Your task to perform on an android device: uninstall "Microsoft Outlook" Image 0: 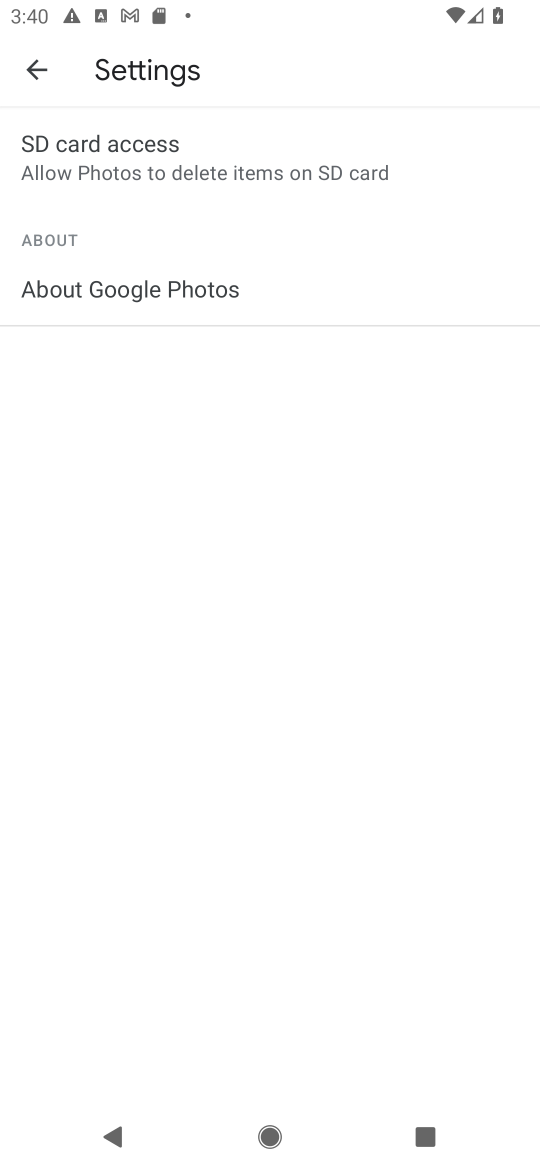
Step 0: press home button
Your task to perform on an android device: uninstall "Microsoft Outlook" Image 1: 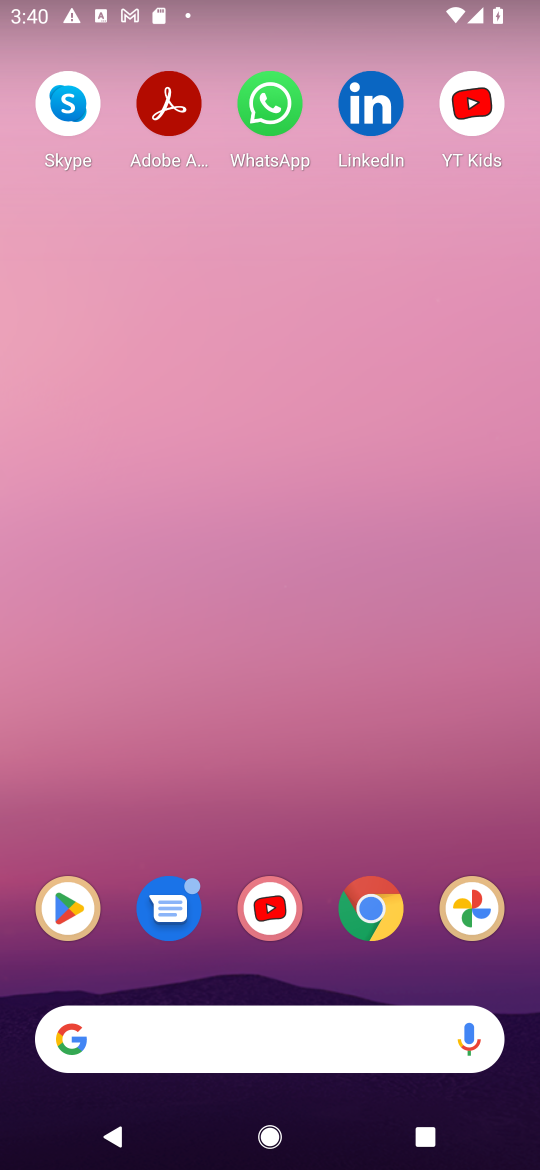
Step 1: click (60, 897)
Your task to perform on an android device: uninstall "Microsoft Outlook" Image 2: 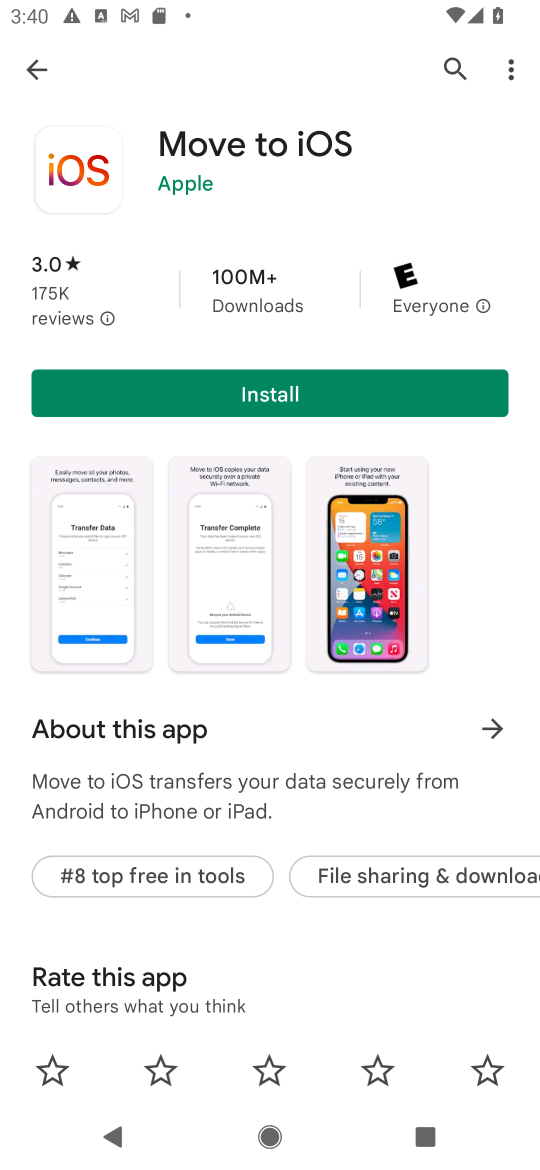
Step 2: click (464, 70)
Your task to perform on an android device: uninstall "Microsoft Outlook" Image 3: 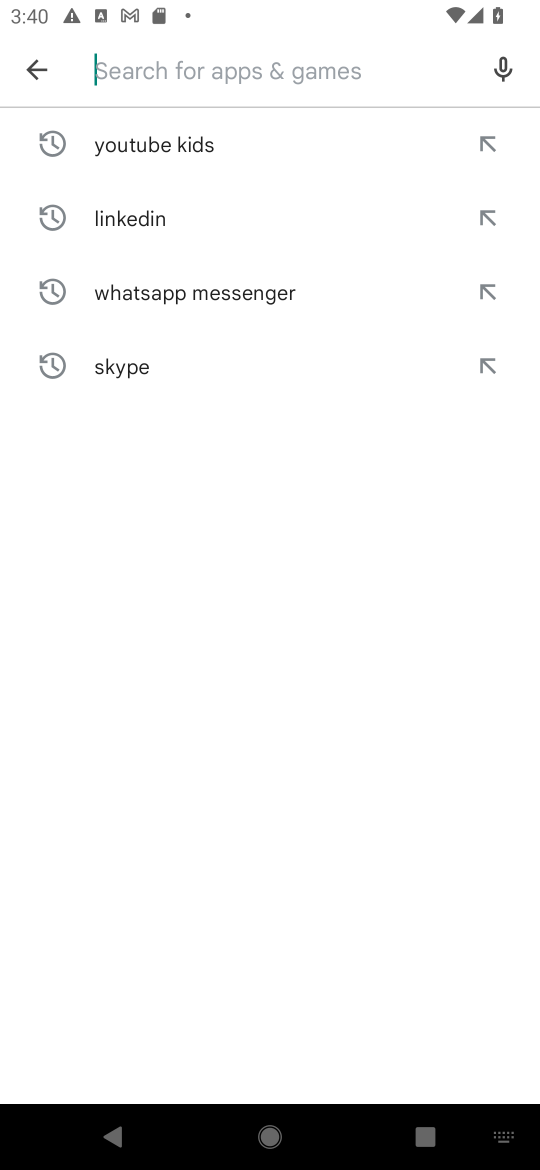
Step 3: type "Microsoft outlook"
Your task to perform on an android device: uninstall "Microsoft Outlook" Image 4: 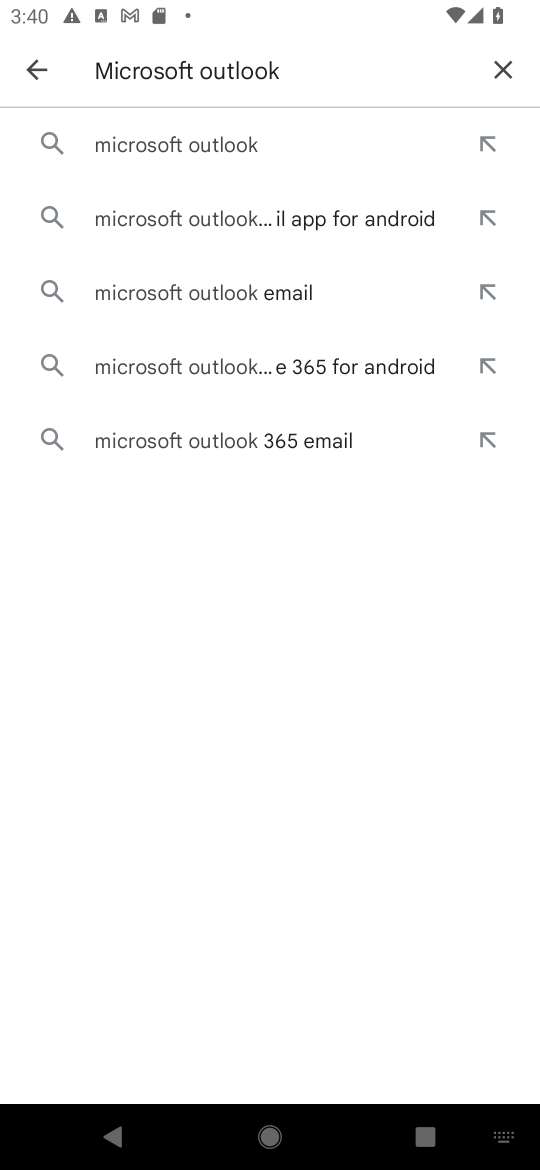
Step 4: click (279, 150)
Your task to perform on an android device: uninstall "Microsoft Outlook" Image 5: 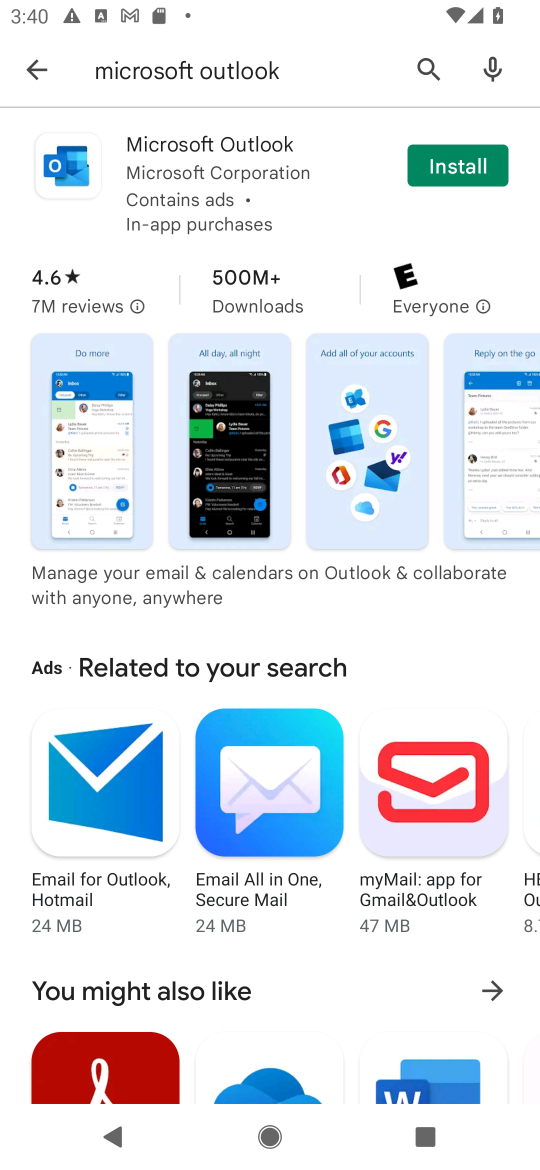
Step 5: task complete